Your task to perform on an android device: turn off location Image 0: 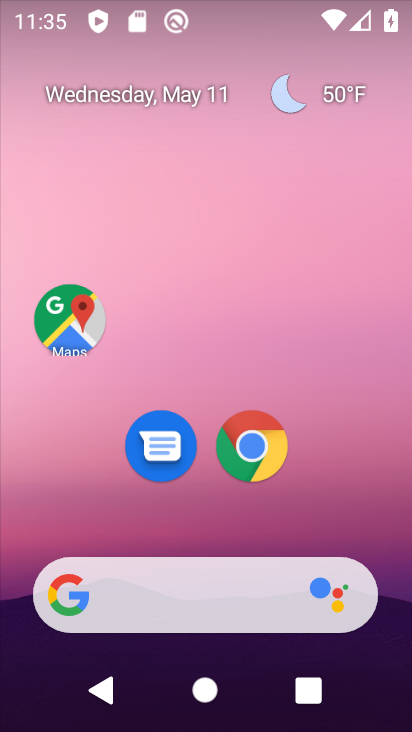
Step 0: drag from (218, 528) to (235, 277)
Your task to perform on an android device: turn off location Image 1: 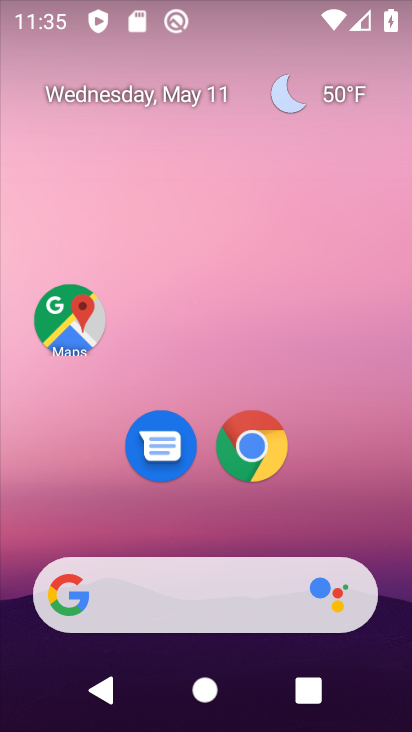
Step 1: drag from (197, 486) to (279, 49)
Your task to perform on an android device: turn off location Image 2: 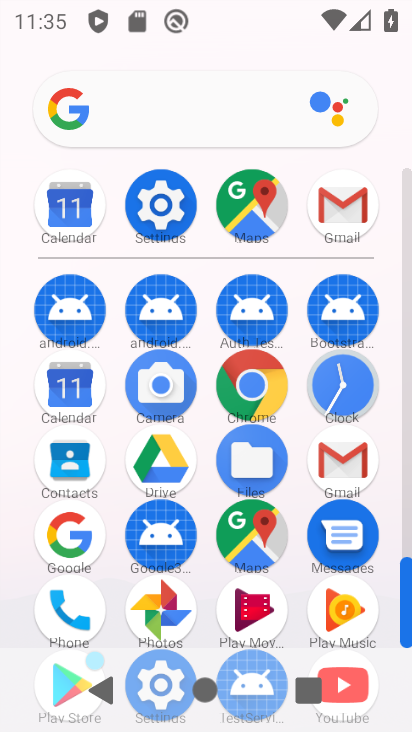
Step 2: click (158, 209)
Your task to perform on an android device: turn off location Image 3: 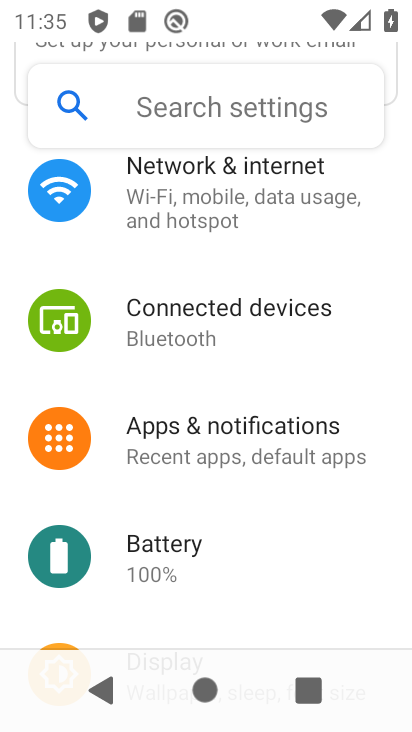
Step 3: drag from (260, 362) to (237, 594)
Your task to perform on an android device: turn off location Image 4: 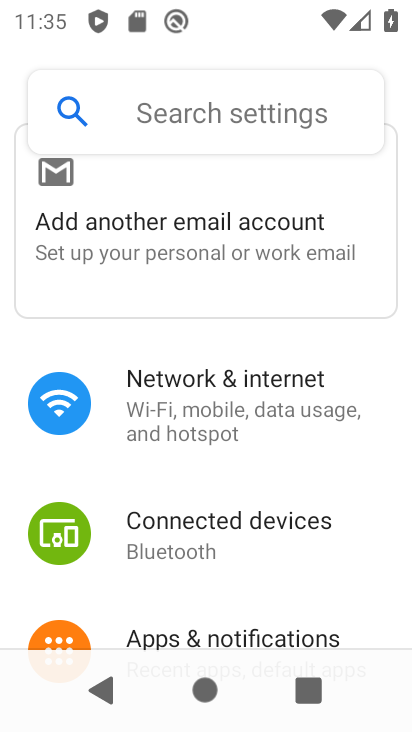
Step 4: drag from (299, 559) to (315, 367)
Your task to perform on an android device: turn off location Image 5: 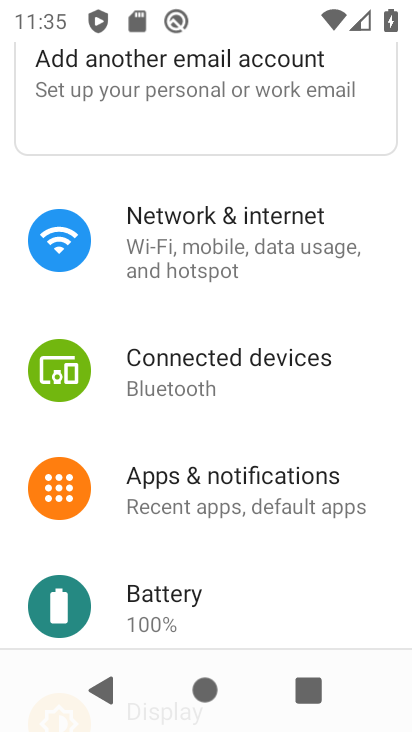
Step 5: drag from (286, 557) to (281, 317)
Your task to perform on an android device: turn off location Image 6: 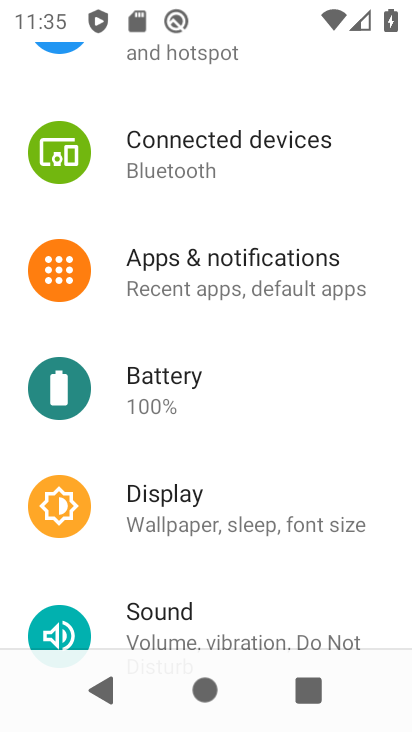
Step 6: drag from (259, 589) to (258, 264)
Your task to perform on an android device: turn off location Image 7: 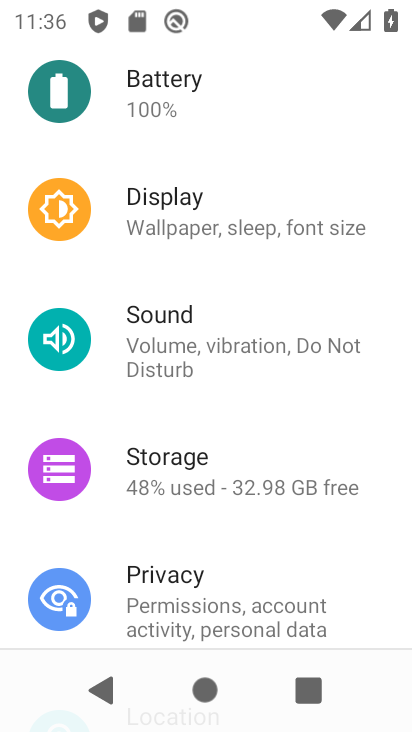
Step 7: drag from (265, 570) to (252, 276)
Your task to perform on an android device: turn off location Image 8: 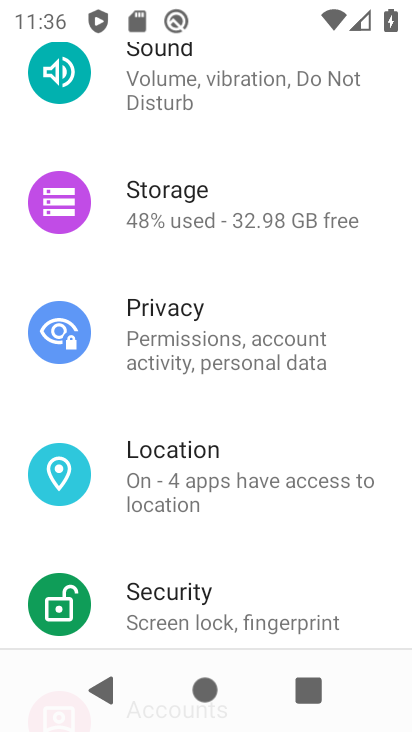
Step 8: click (229, 479)
Your task to perform on an android device: turn off location Image 9: 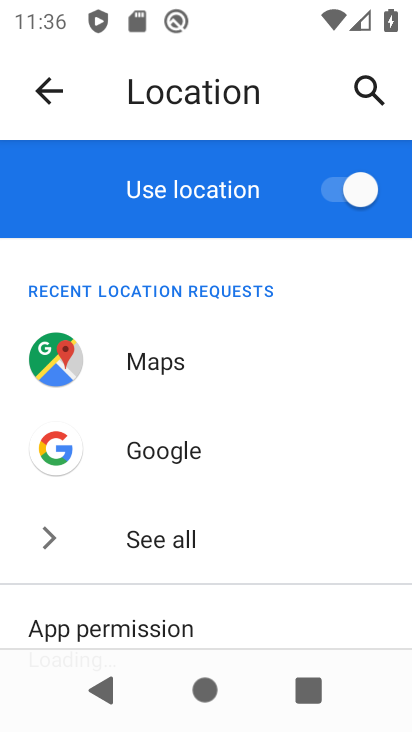
Step 9: click (352, 185)
Your task to perform on an android device: turn off location Image 10: 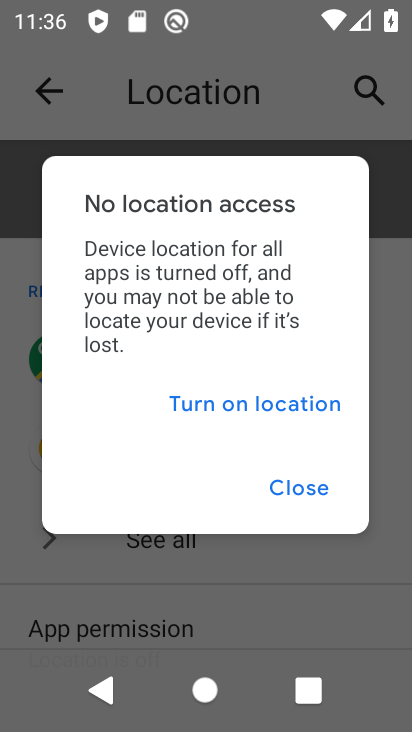
Step 10: task complete